Your task to perform on an android device: How do I get to the nearest McDonalds? Image 0: 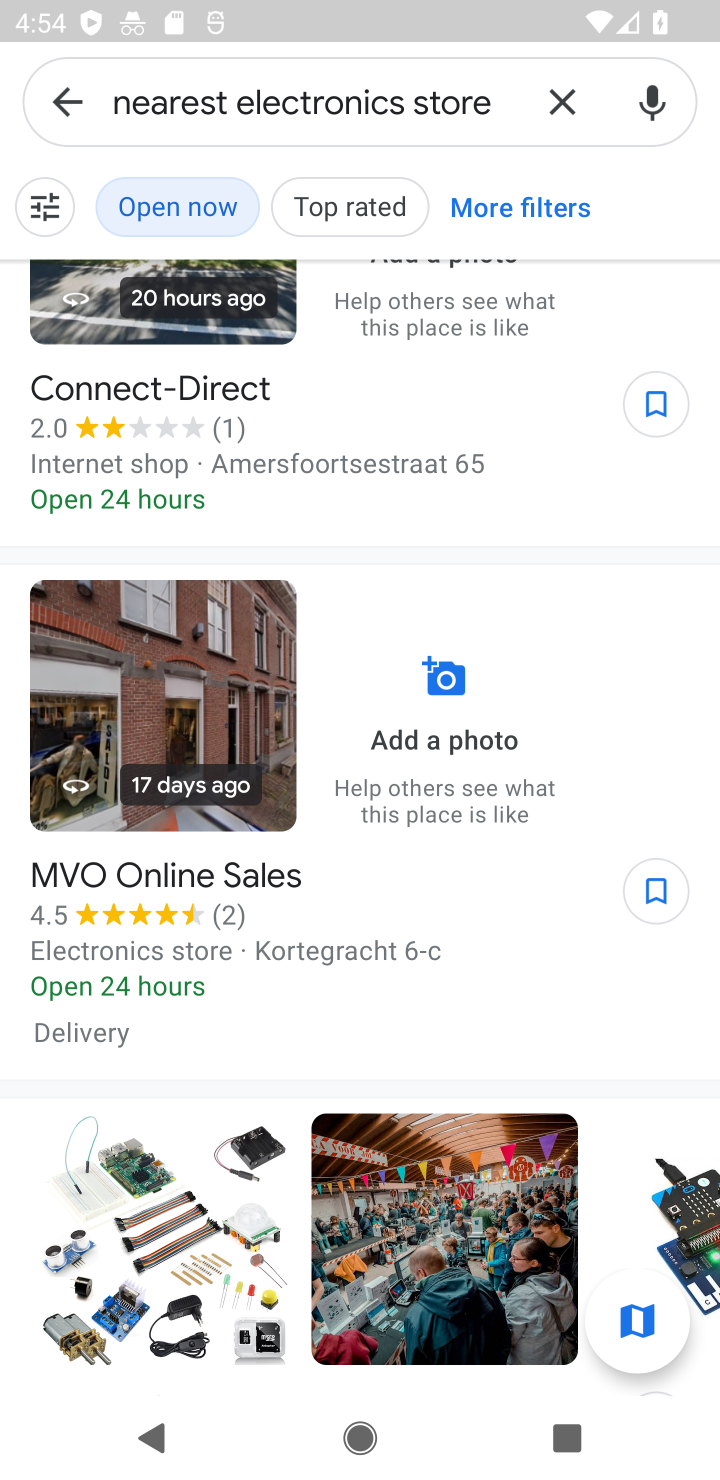
Step 0: press home button
Your task to perform on an android device: How do I get to the nearest McDonalds? Image 1: 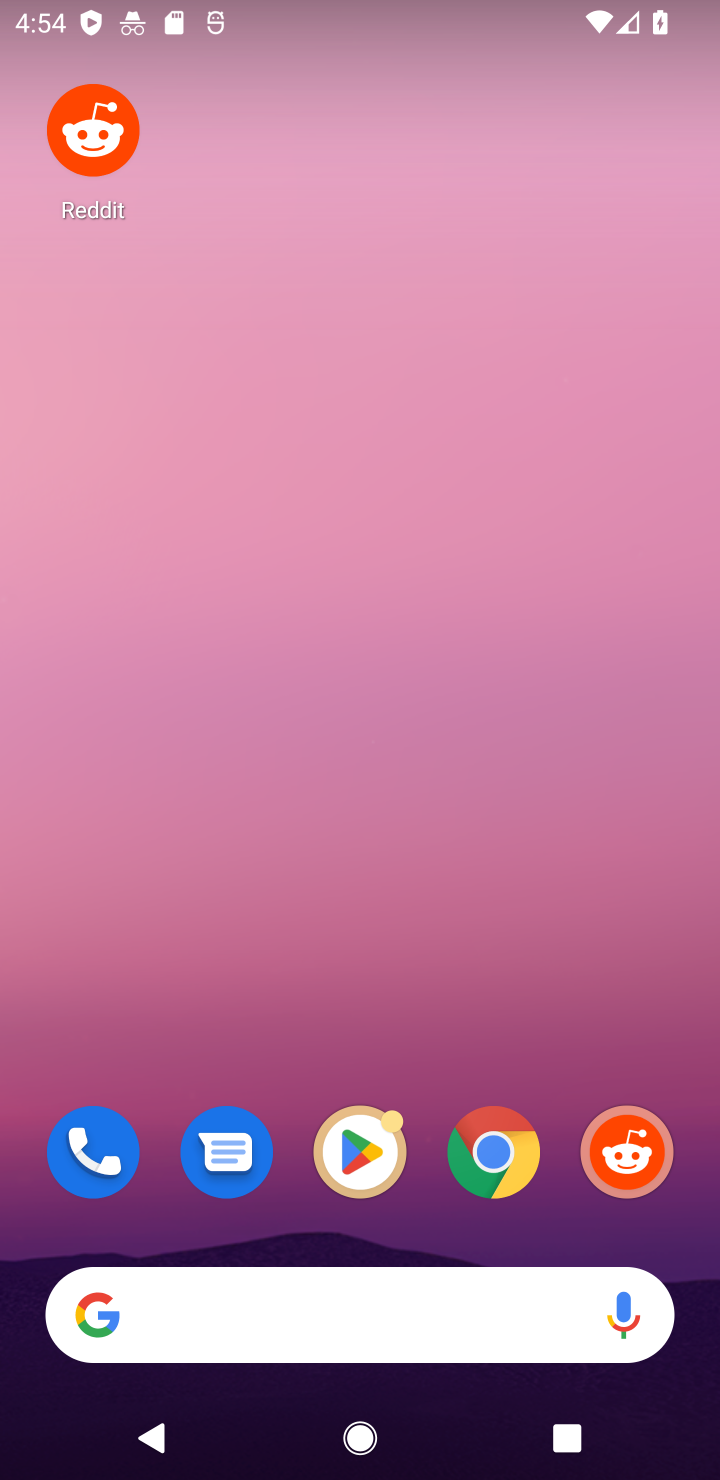
Step 1: drag from (330, 1320) to (419, 294)
Your task to perform on an android device: How do I get to the nearest McDonalds? Image 2: 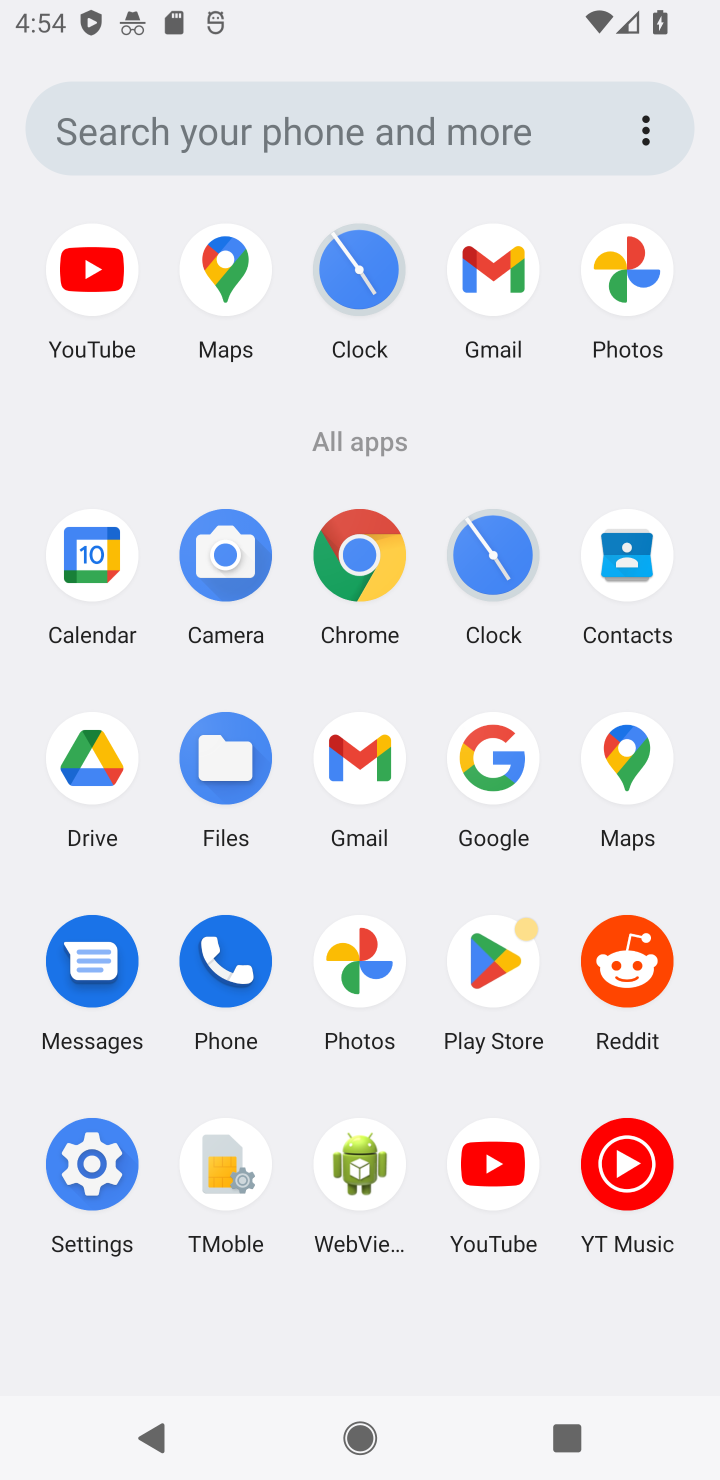
Step 2: click (212, 273)
Your task to perform on an android device: How do I get to the nearest McDonalds? Image 3: 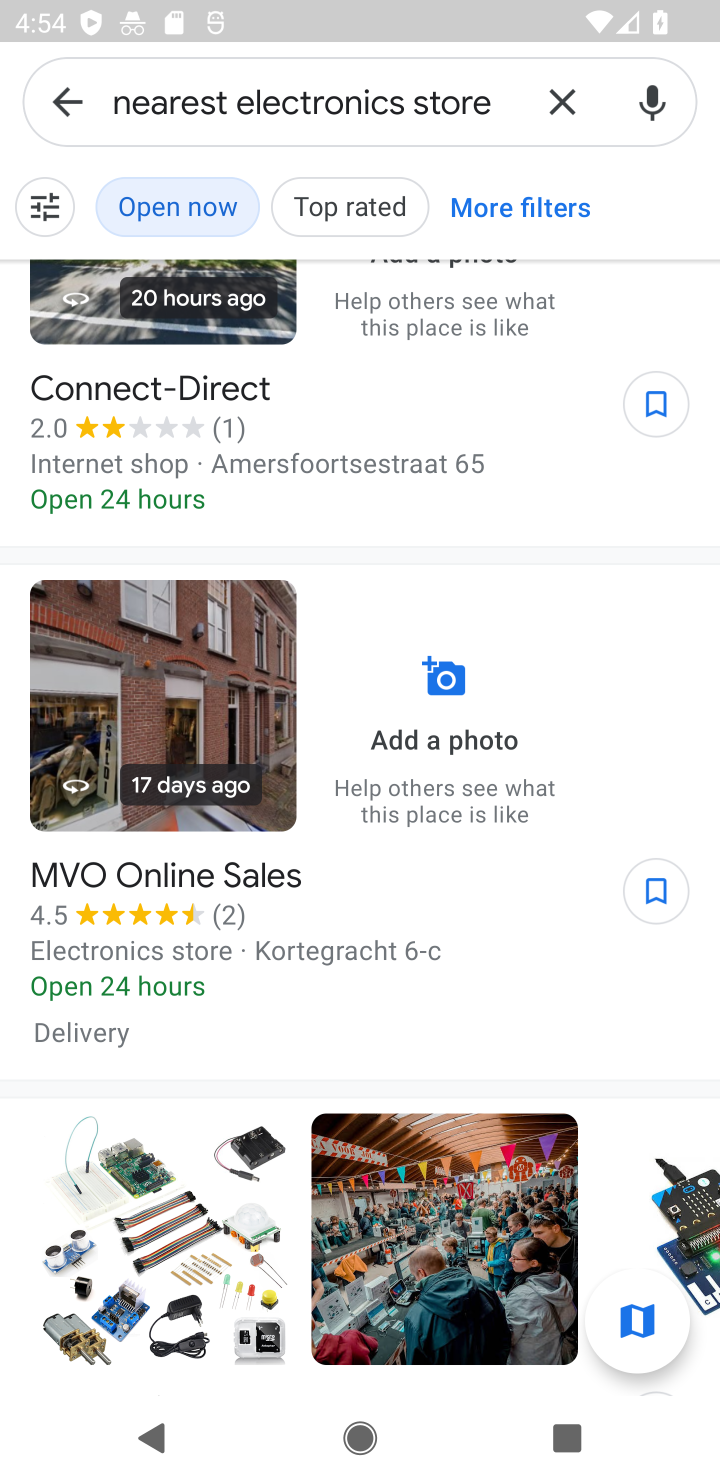
Step 3: click (571, 82)
Your task to perform on an android device: How do I get to the nearest McDonalds? Image 4: 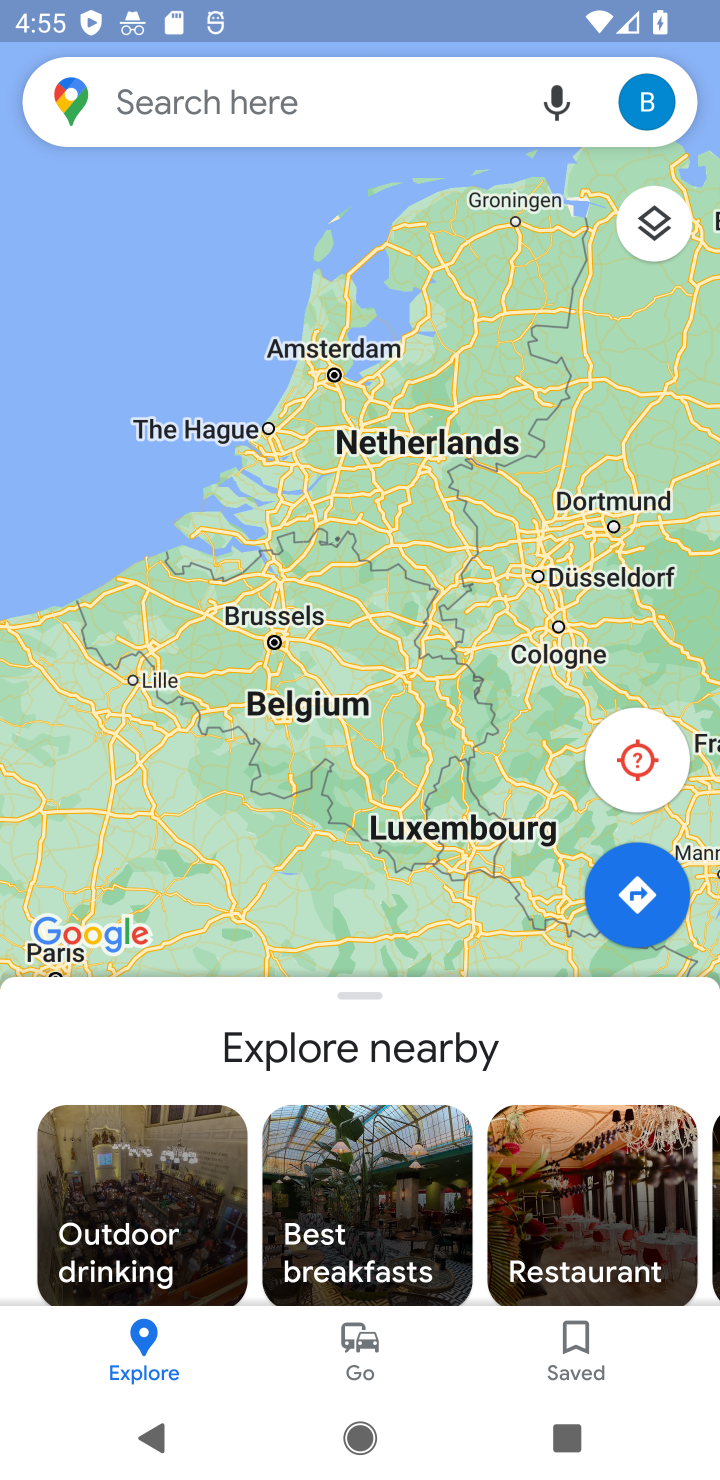
Step 4: type "nearest McDonalds"
Your task to perform on an android device: How do I get to the nearest McDonalds? Image 5: 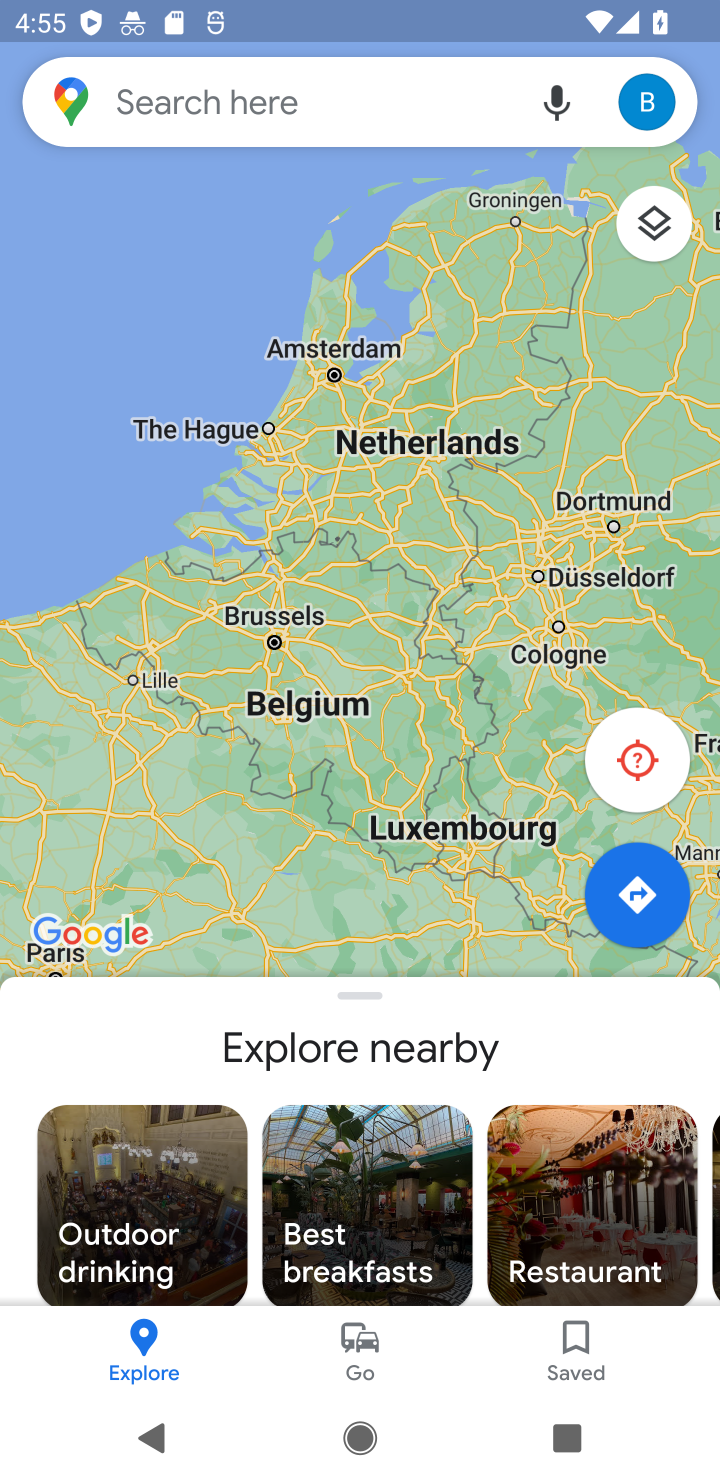
Step 5: click (360, 116)
Your task to perform on an android device: How do I get to the nearest McDonalds? Image 6: 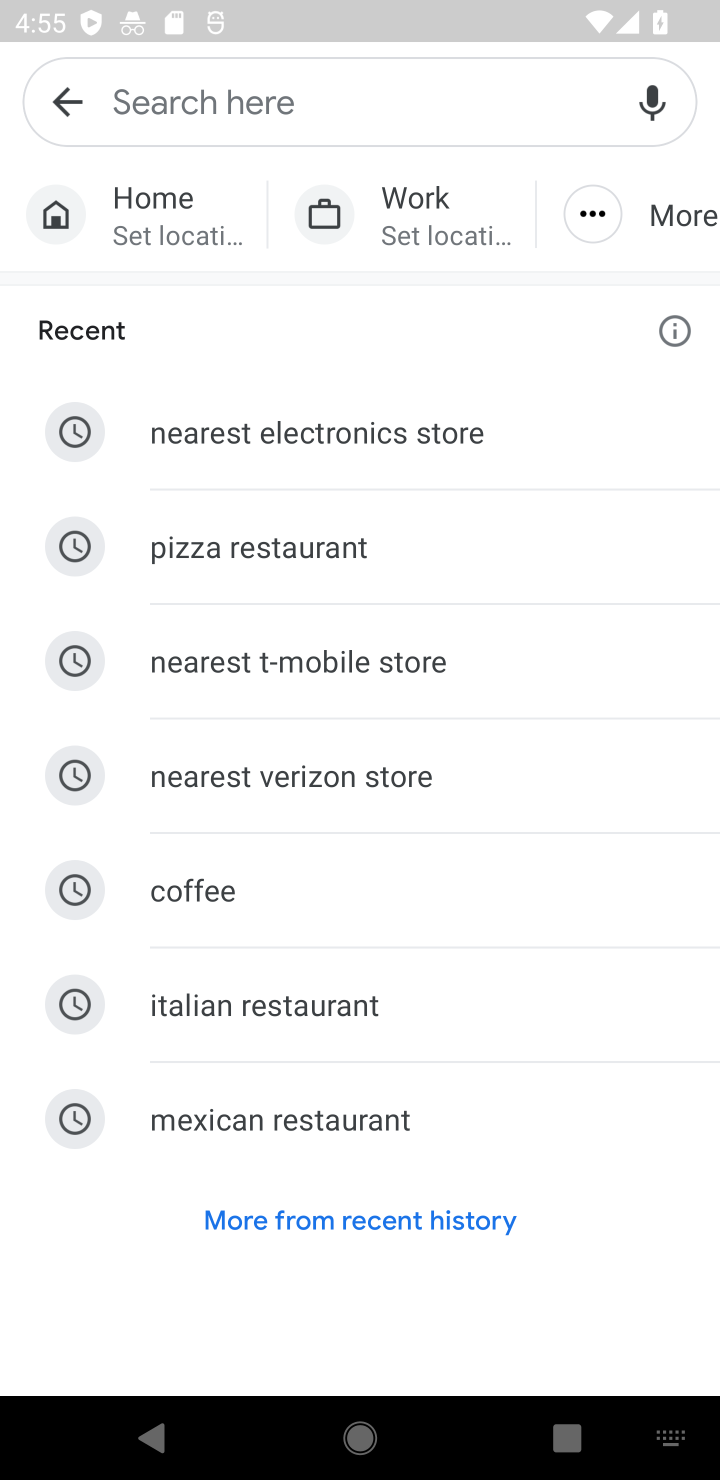
Step 6: type "nearest McDonalds"
Your task to perform on an android device: How do I get to the nearest McDonalds? Image 7: 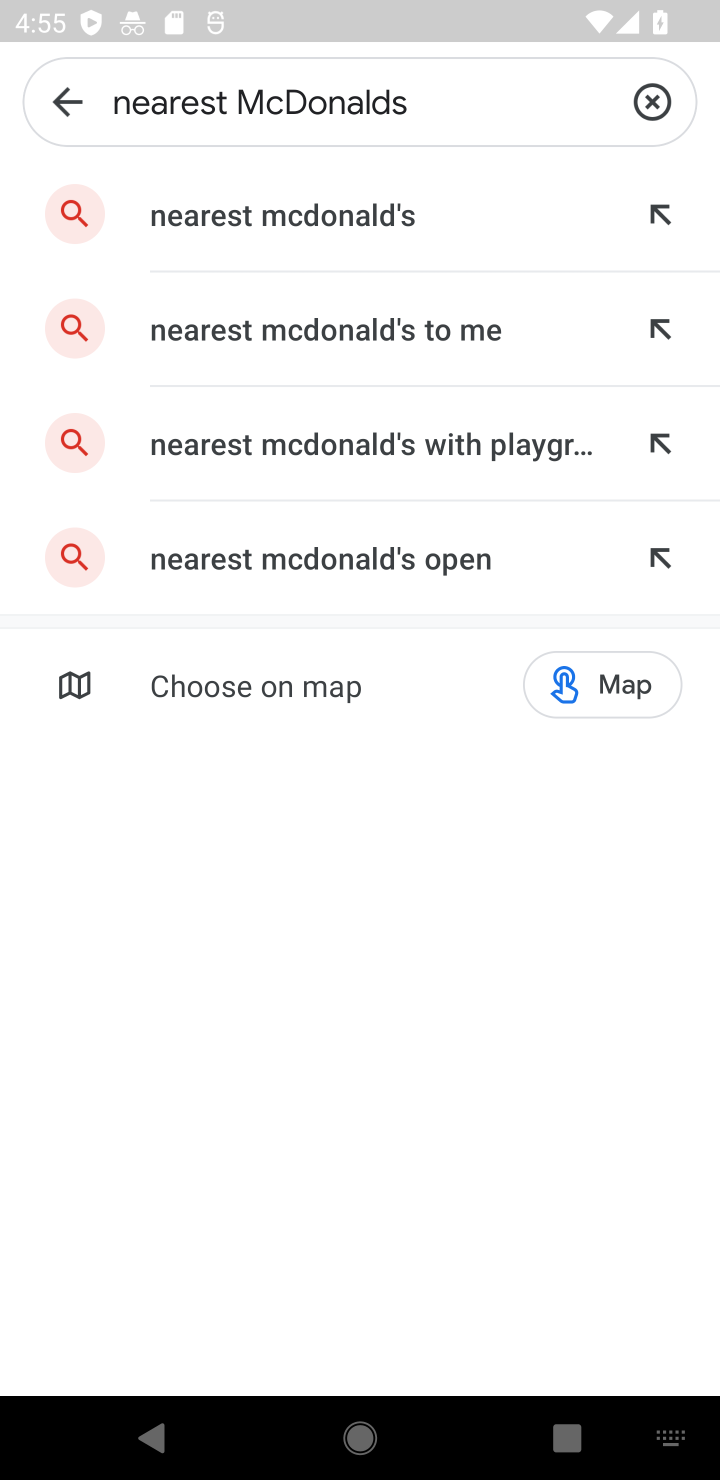
Step 7: click (385, 209)
Your task to perform on an android device: How do I get to the nearest McDonalds? Image 8: 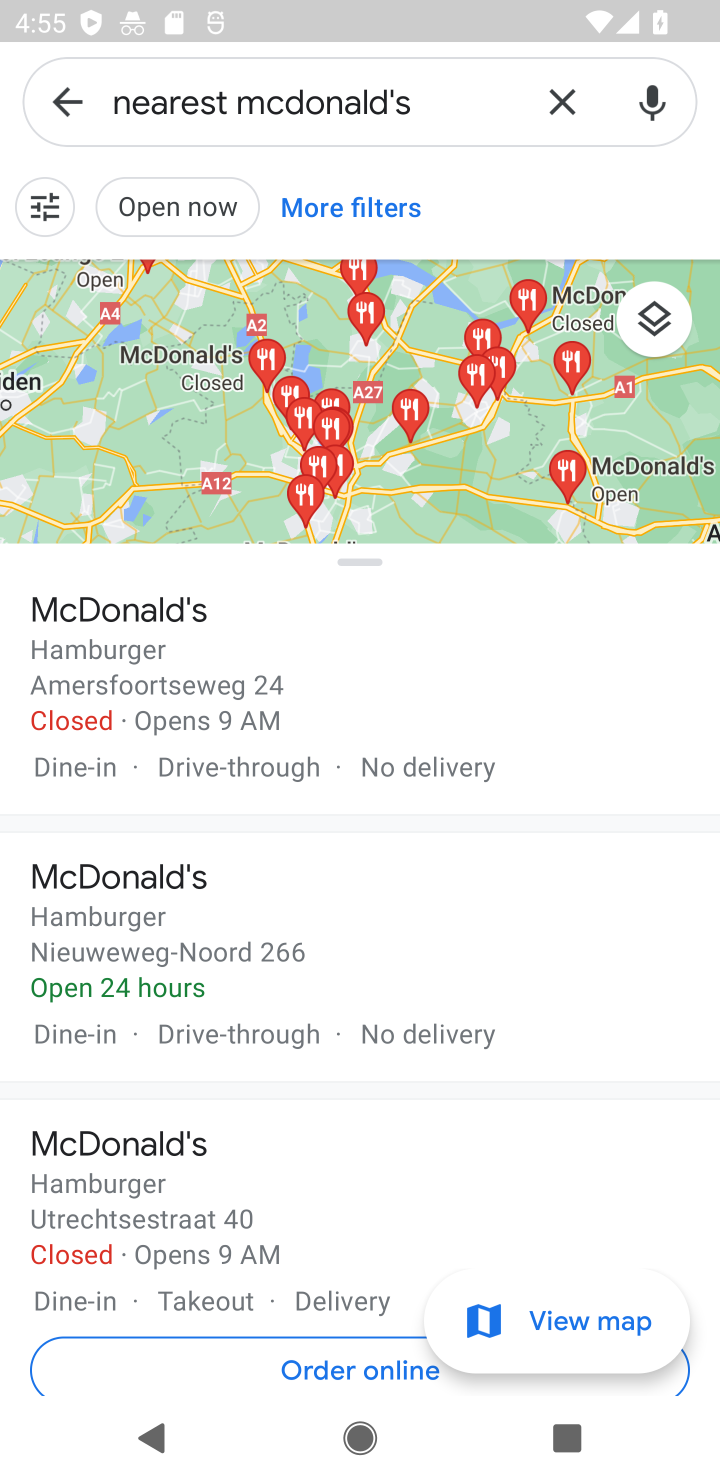
Step 8: task complete